Your task to perform on an android device: Go to settings Image 0: 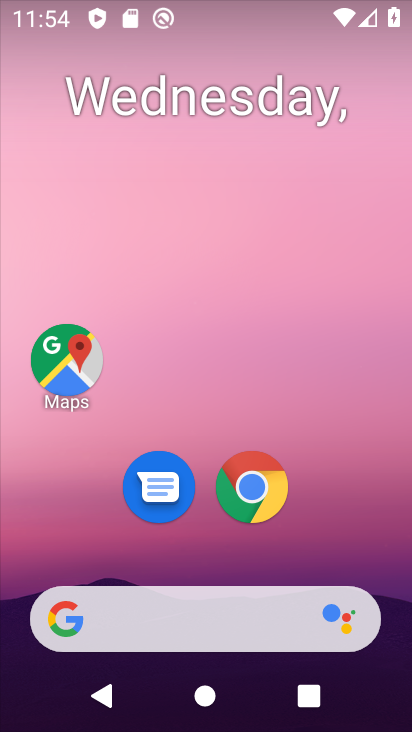
Step 0: drag from (196, 542) to (261, 23)
Your task to perform on an android device: Go to settings Image 1: 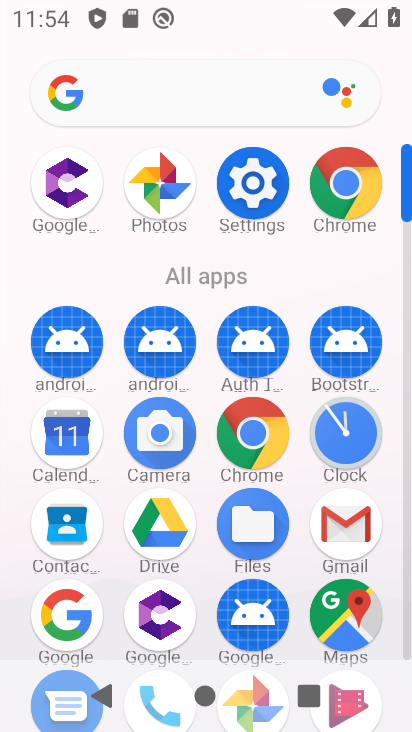
Step 1: click (256, 161)
Your task to perform on an android device: Go to settings Image 2: 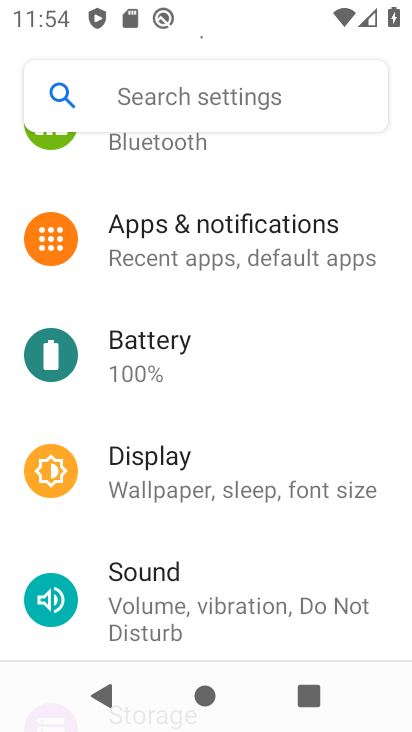
Step 2: task complete